Your task to perform on an android device: open sync settings in chrome Image 0: 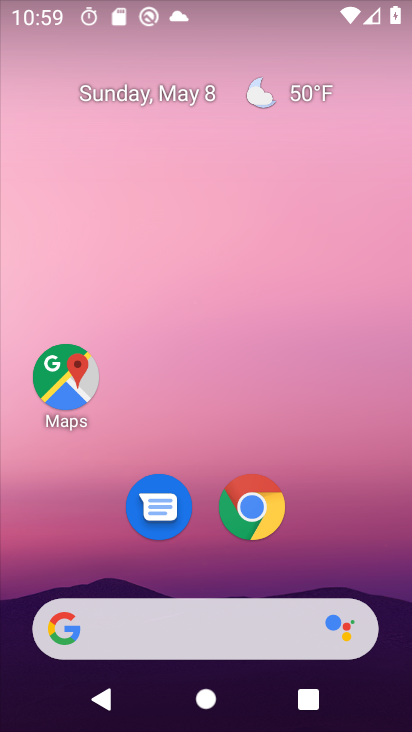
Step 0: click (242, 506)
Your task to perform on an android device: open sync settings in chrome Image 1: 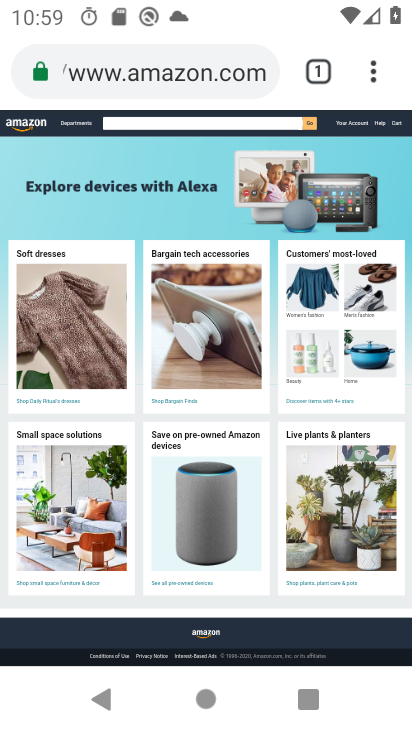
Step 1: drag from (375, 78) to (236, 489)
Your task to perform on an android device: open sync settings in chrome Image 2: 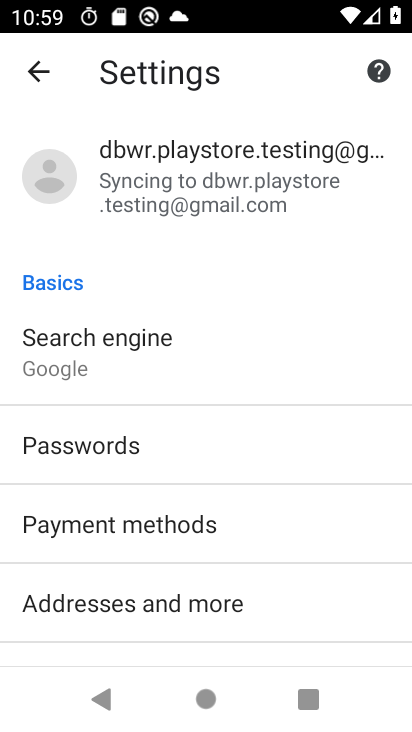
Step 2: drag from (168, 639) to (180, 340)
Your task to perform on an android device: open sync settings in chrome Image 3: 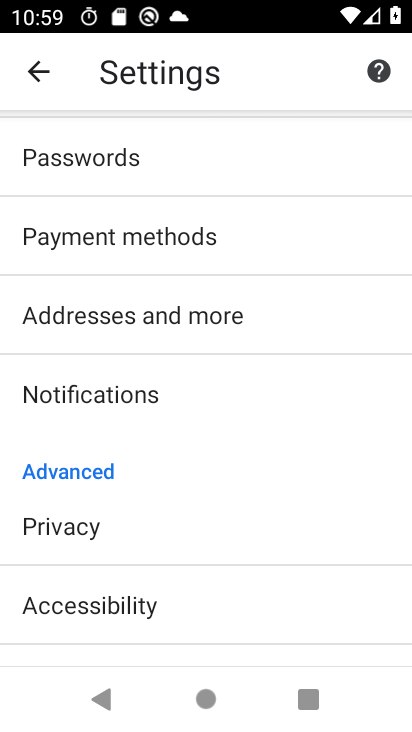
Step 3: drag from (156, 630) to (154, 368)
Your task to perform on an android device: open sync settings in chrome Image 4: 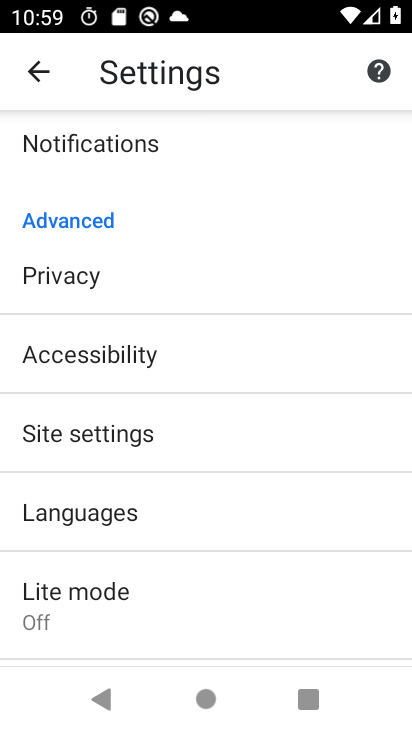
Step 4: click (84, 431)
Your task to perform on an android device: open sync settings in chrome Image 5: 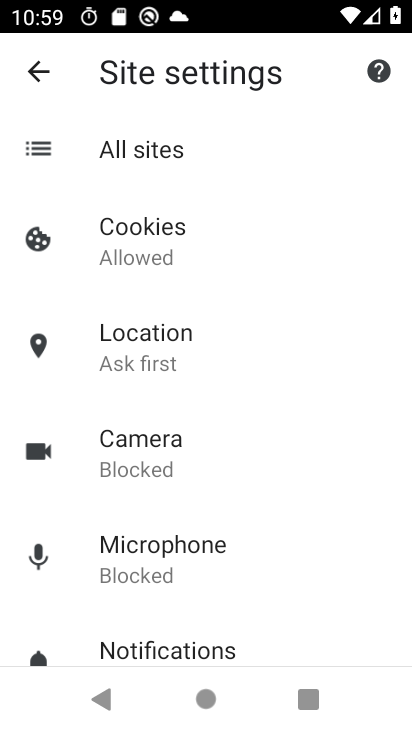
Step 5: drag from (253, 615) to (242, 356)
Your task to perform on an android device: open sync settings in chrome Image 6: 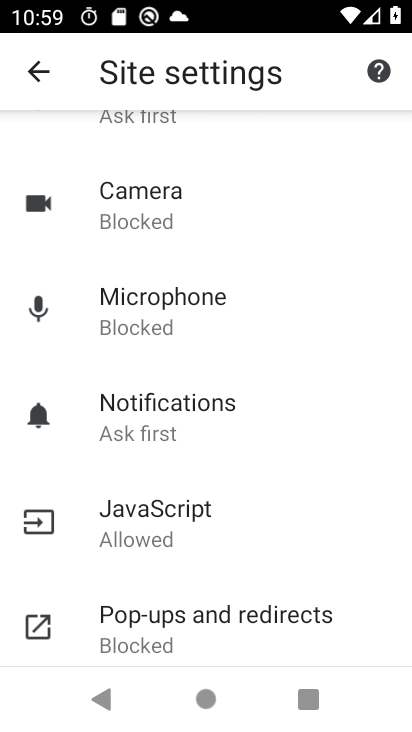
Step 6: drag from (219, 582) to (227, 343)
Your task to perform on an android device: open sync settings in chrome Image 7: 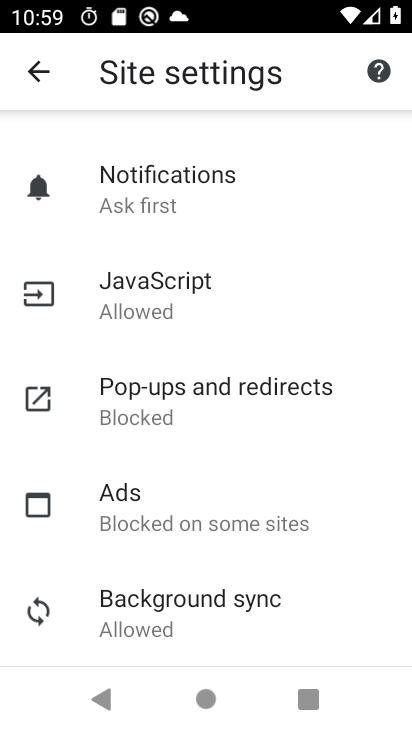
Step 7: click (225, 602)
Your task to perform on an android device: open sync settings in chrome Image 8: 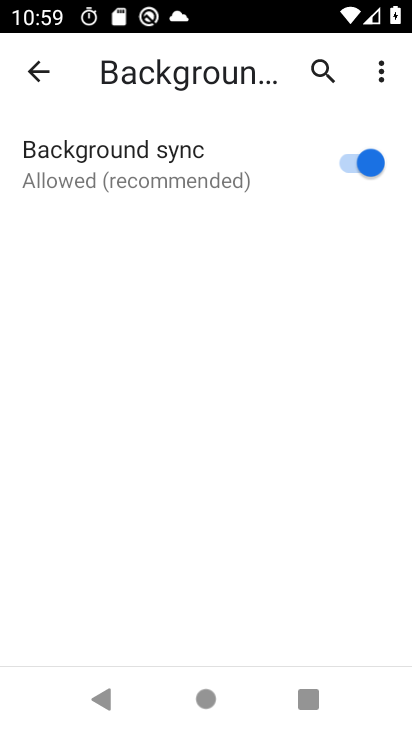
Step 8: task complete